Your task to perform on an android device: Open Wikipedia Image 0: 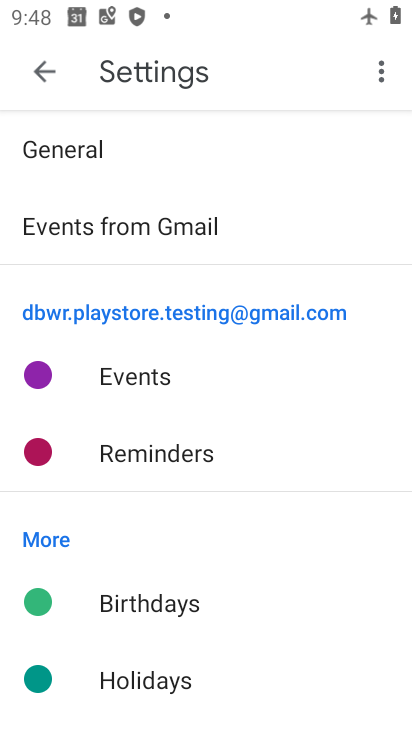
Step 0: press home button
Your task to perform on an android device: Open Wikipedia Image 1: 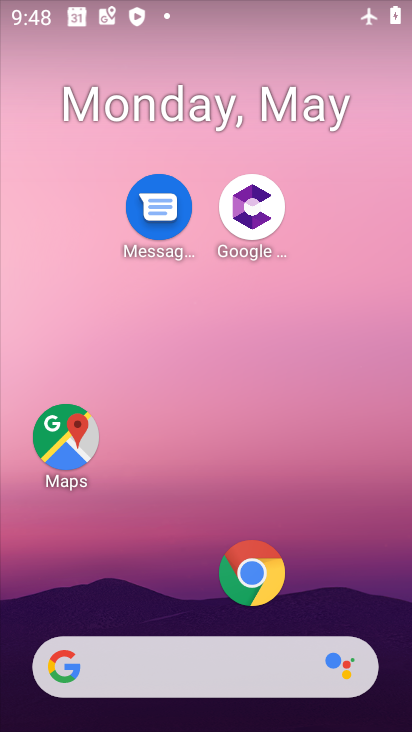
Step 1: drag from (178, 591) to (245, 131)
Your task to perform on an android device: Open Wikipedia Image 2: 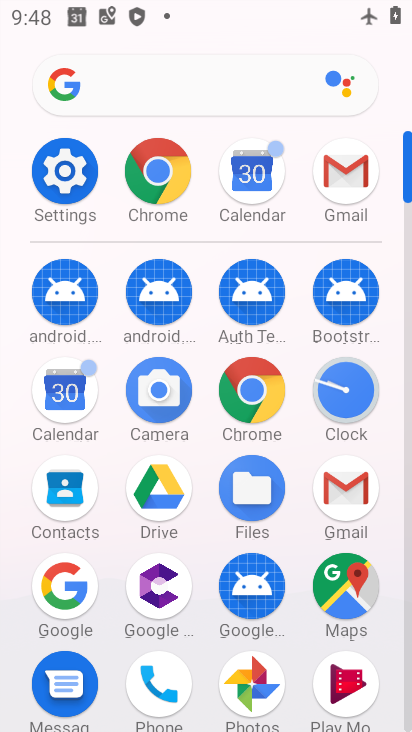
Step 2: click (156, 183)
Your task to perform on an android device: Open Wikipedia Image 3: 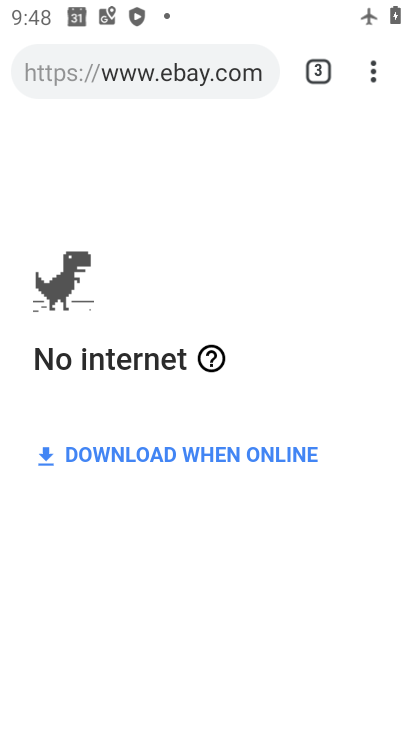
Step 3: click (186, 77)
Your task to perform on an android device: Open Wikipedia Image 4: 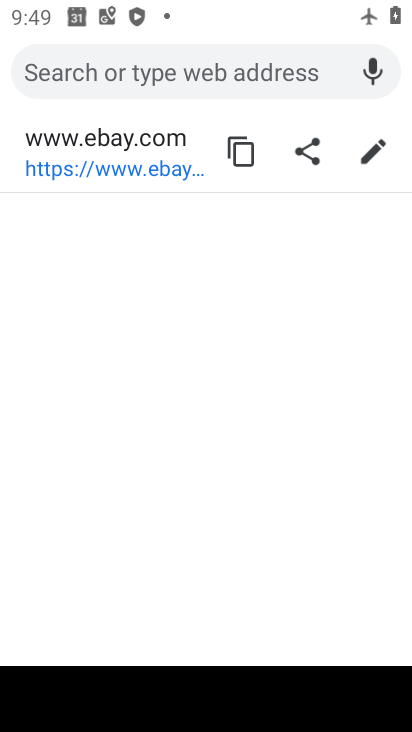
Step 4: type "wikipedia"
Your task to perform on an android device: Open Wikipedia Image 5: 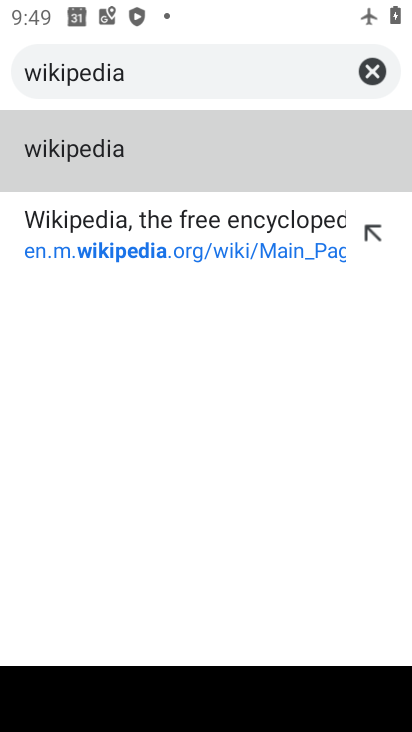
Step 5: click (162, 245)
Your task to perform on an android device: Open Wikipedia Image 6: 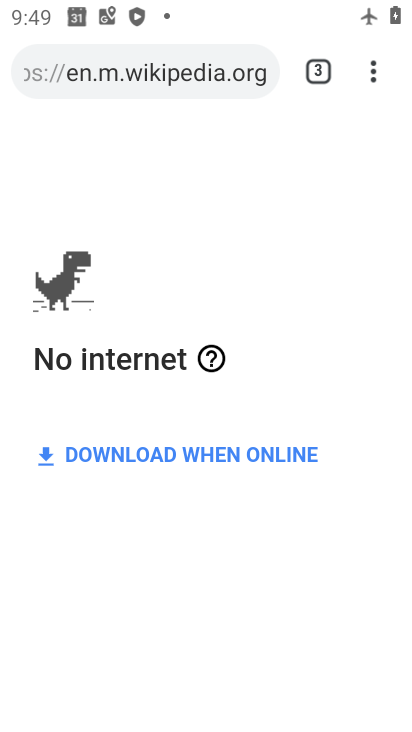
Step 6: task complete